Your task to perform on an android device: What's on my calendar today? Image 0: 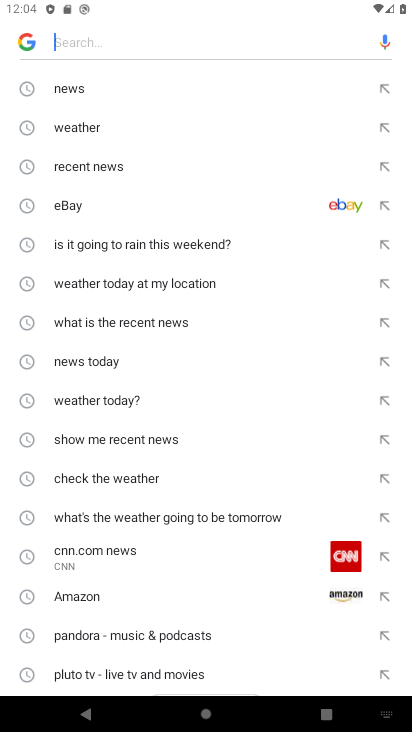
Step 0: press back button
Your task to perform on an android device: What's on my calendar today? Image 1: 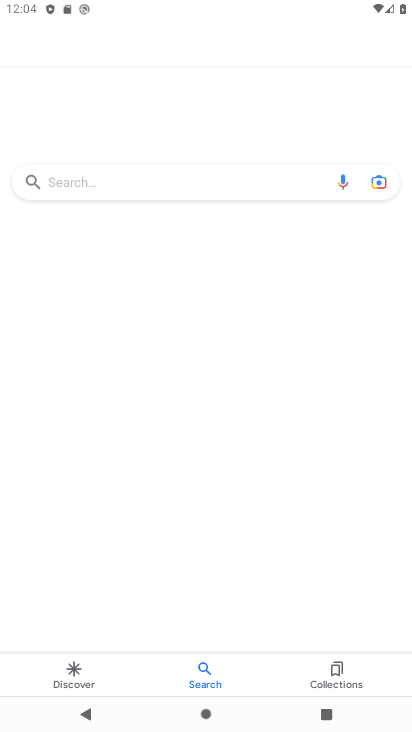
Step 1: press back button
Your task to perform on an android device: What's on my calendar today? Image 2: 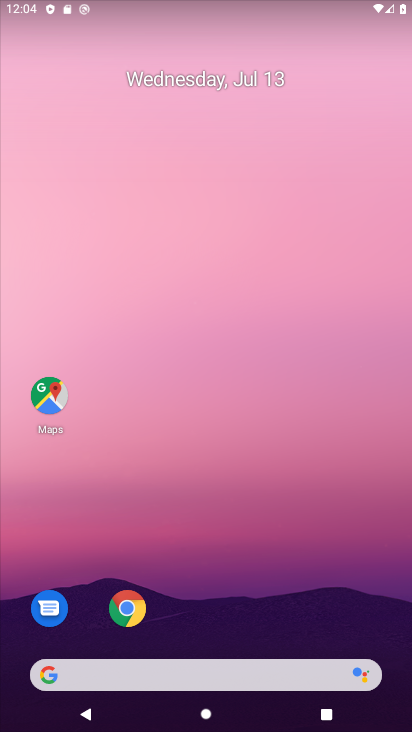
Step 2: drag from (267, 646) to (301, 25)
Your task to perform on an android device: What's on my calendar today? Image 3: 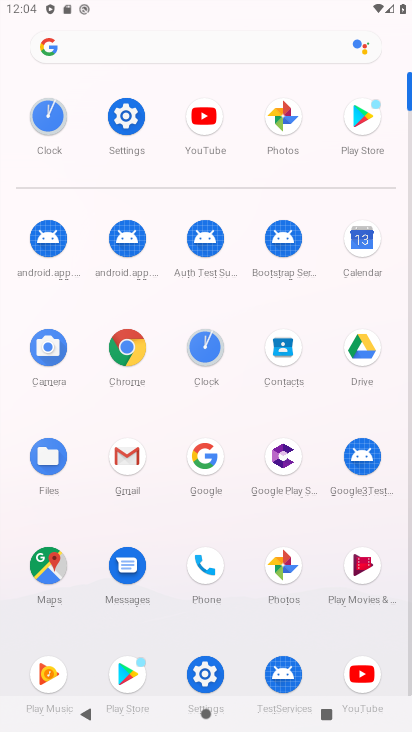
Step 3: click (365, 246)
Your task to perform on an android device: What's on my calendar today? Image 4: 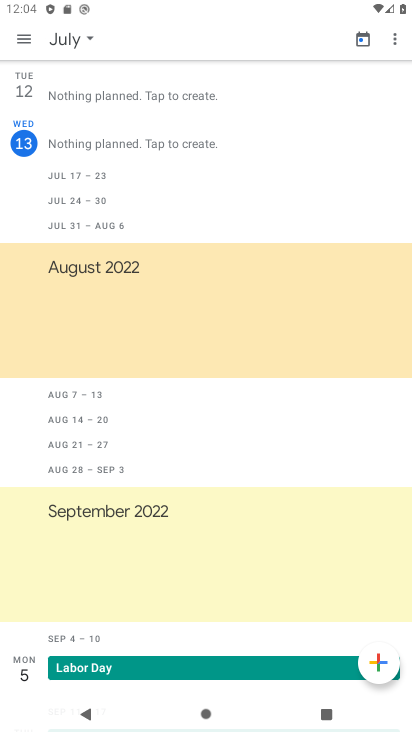
Step 4: task complete